Your task to perform on an android device: star an email in the gmail app Image 0: 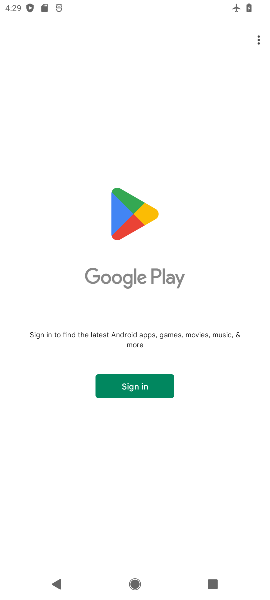
Step 0: press home button
Your task to perform on an android device: star an email in the gmail app Image 1: 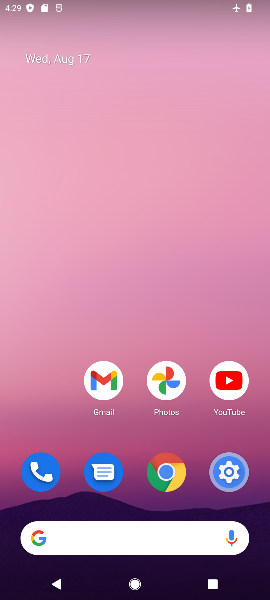
Step 1: click (106, 393)
Your task to perform on an android device: star an email in the gmail app Image 2: 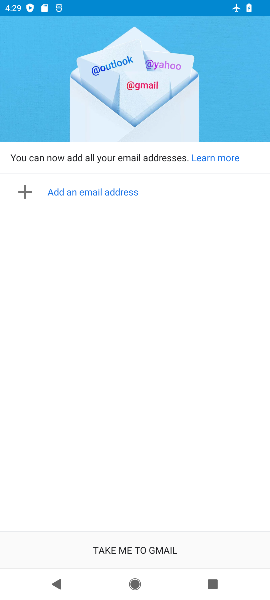
Step 2: task complete